Your task to perform on an android device: Go to Google Image 0: 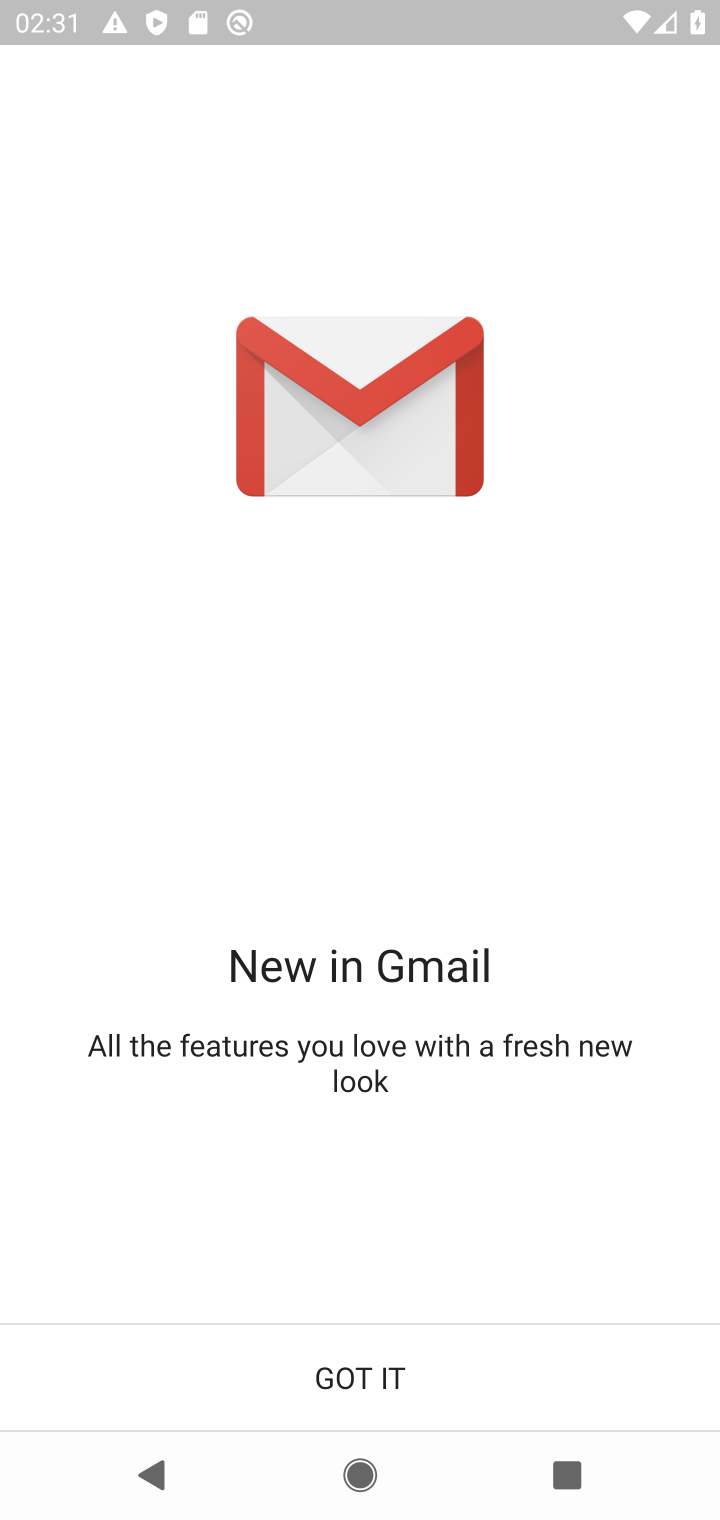
Step 0: press home button
Your task to perform on an android device: Go to Google Image 1: 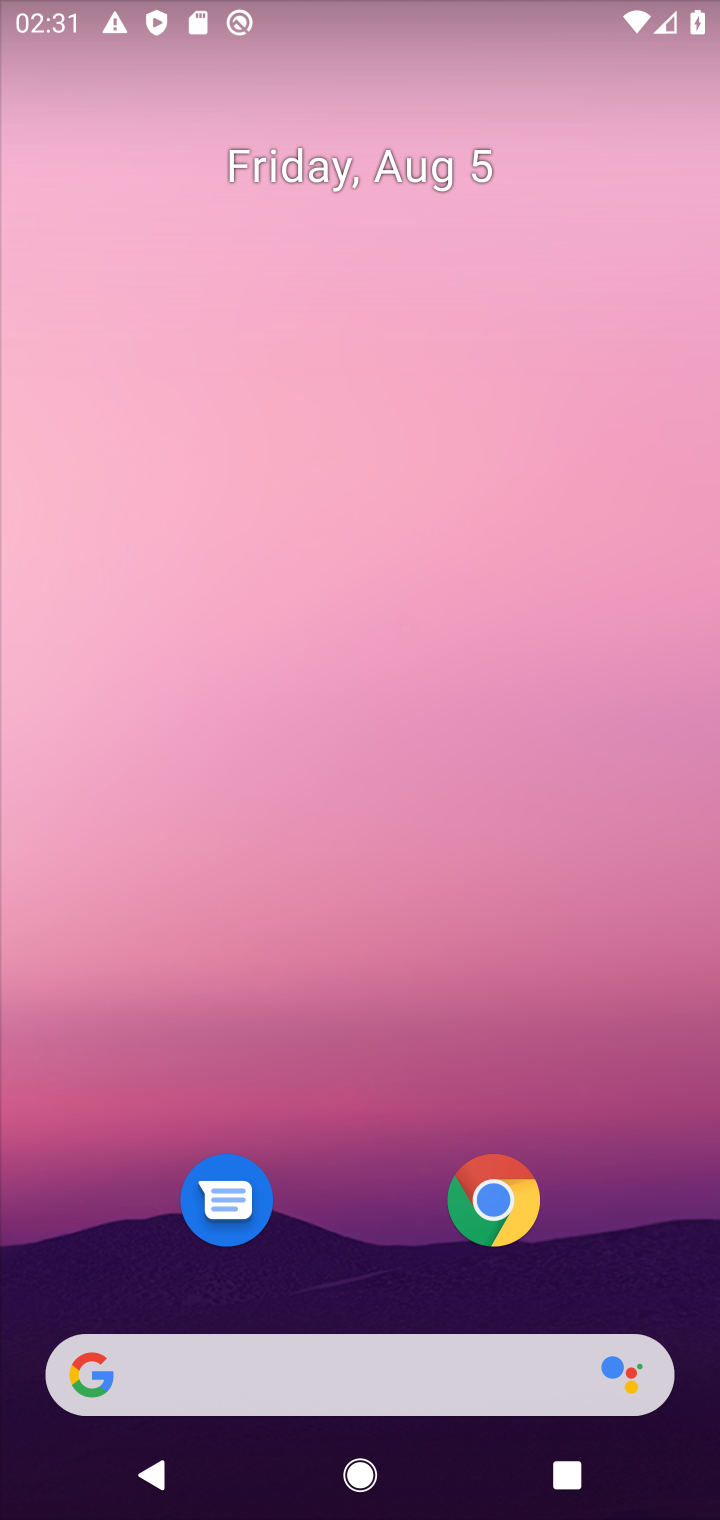
Step 1: drag from (384, 1135) to (348, 302)
Your task to perform on an android device: Go to Google Image 2: 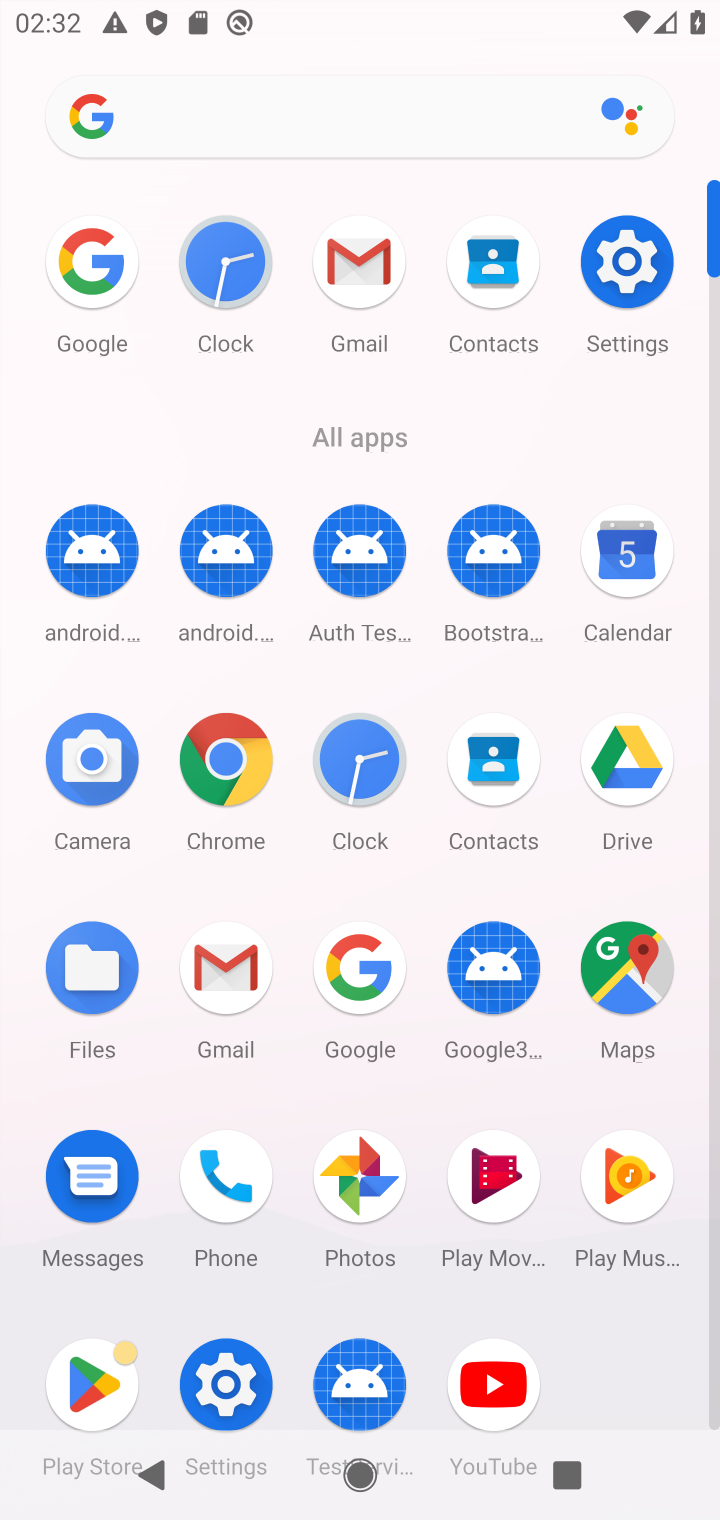
Step 2: click (77, 301)
Your task to perform on an android device: Go to Google Image 3: 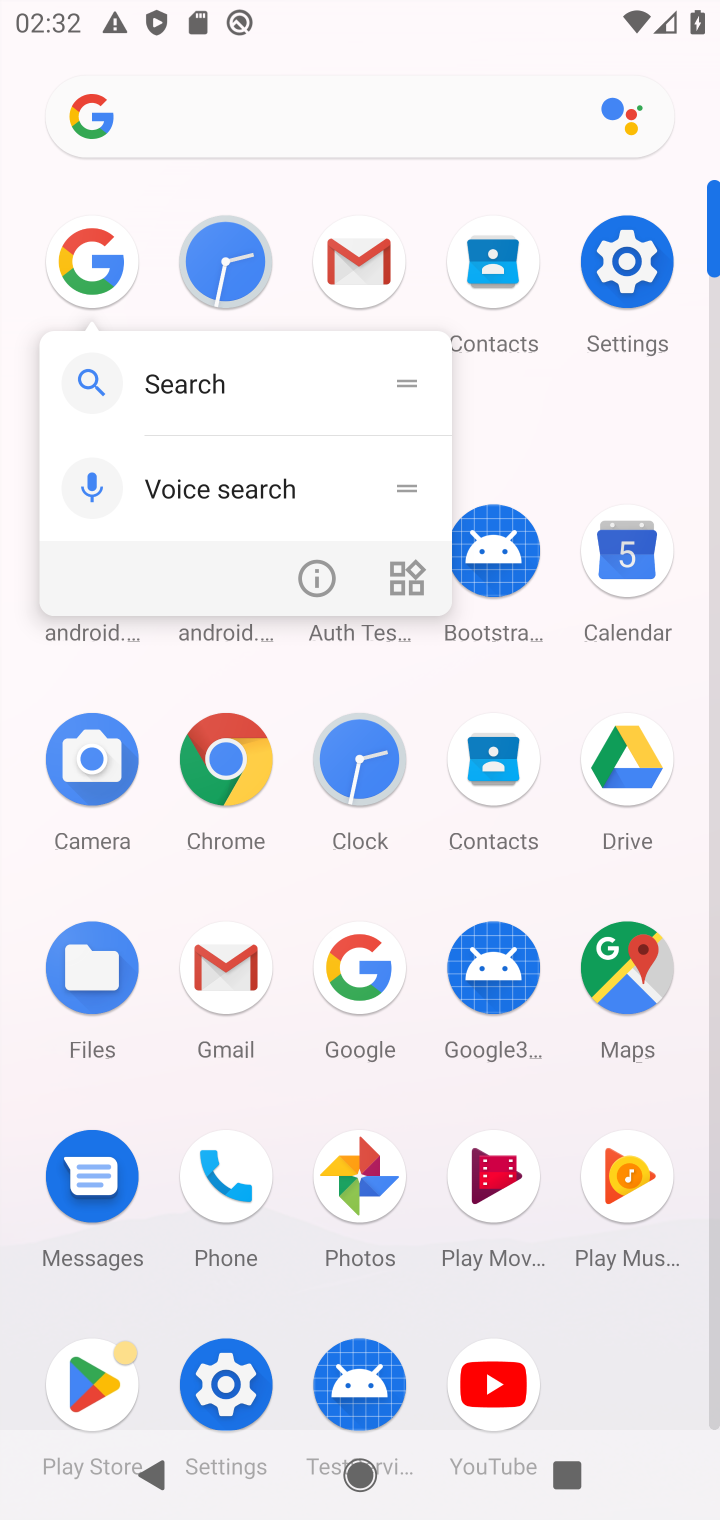
Step 3: click (90, 260)
Your task to perform on an android device: Go to Google Image 4: 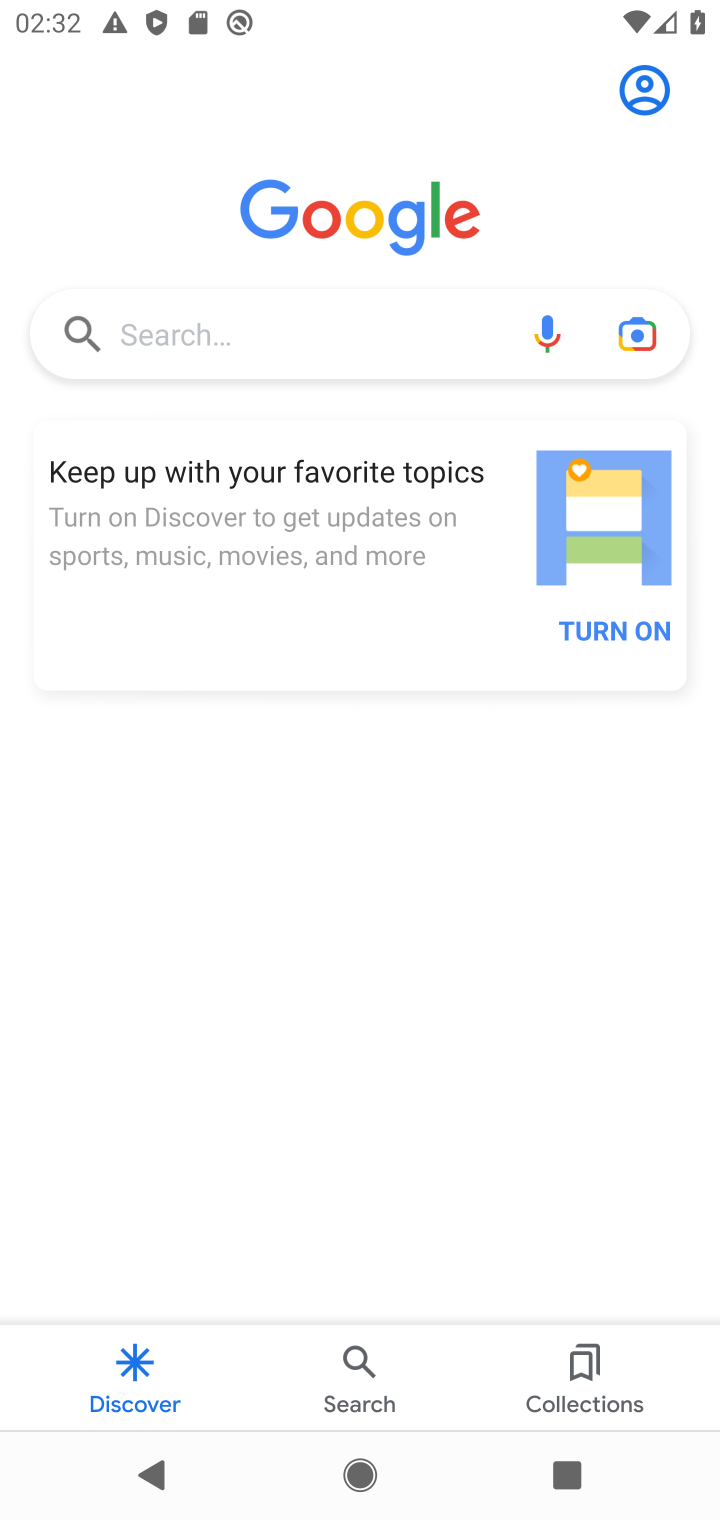
Step 4: task complete